Your task to perform on an android device: Go to ESPN.com Image 0: 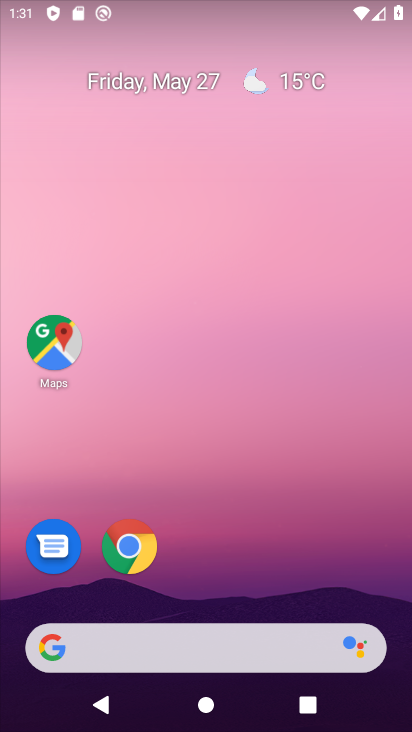
Step 0: drag from (323, 559) to (321, 158)
Your task to perform on an android device: Go to ESPN.com Image 1: 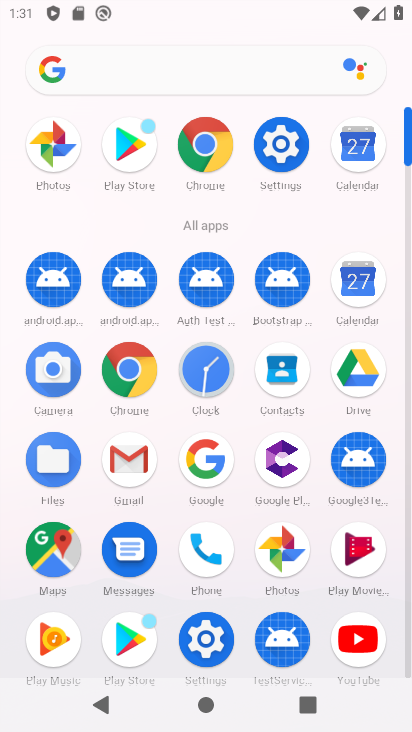
Step 1: click (142, 370)
Your task to perform on an android device: Go to ESPN.com Image 2: 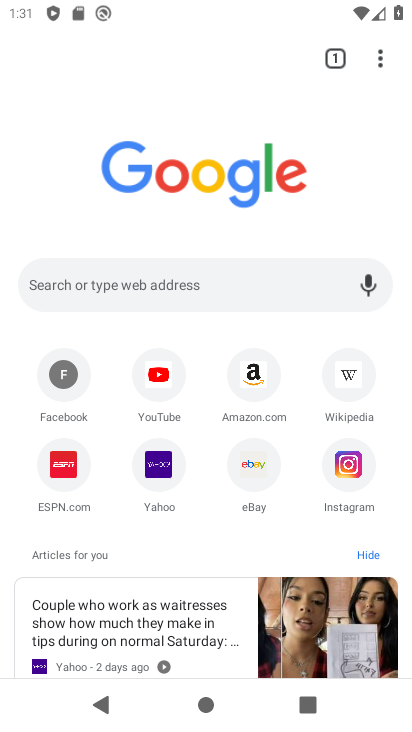
Step 2: click (159, 278)
Your task to perform on an android device: Go to ESPN.com Image 3: 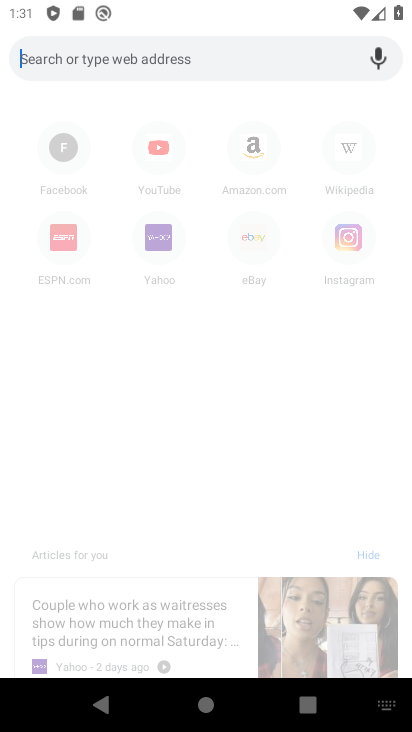
Step 3: type "espn.com"
Your task to perform on an android device: Go to ESPN.com Image 4: 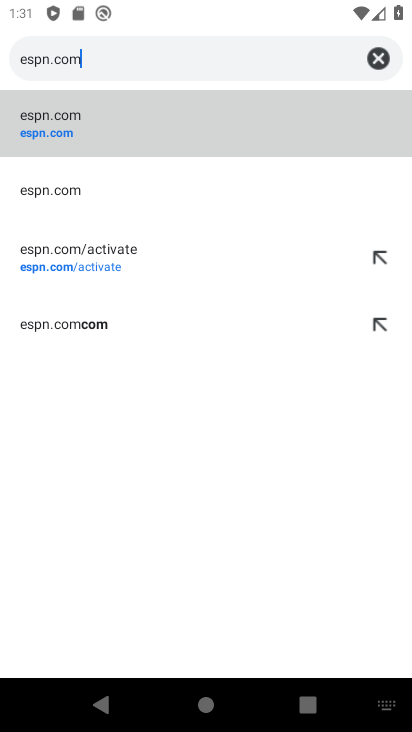
Step 4: click (101, 142)
Your task to perform on an android device: Go to ESPN.com Image 5: 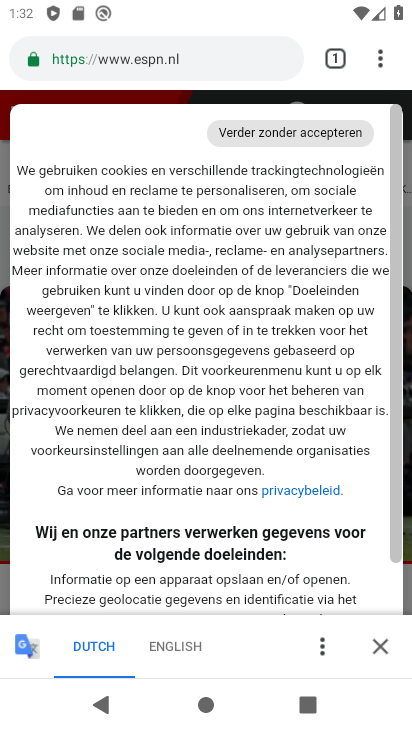
Step 5: task complete